Your task to perform on an android device: change keyboard looks Image 0: 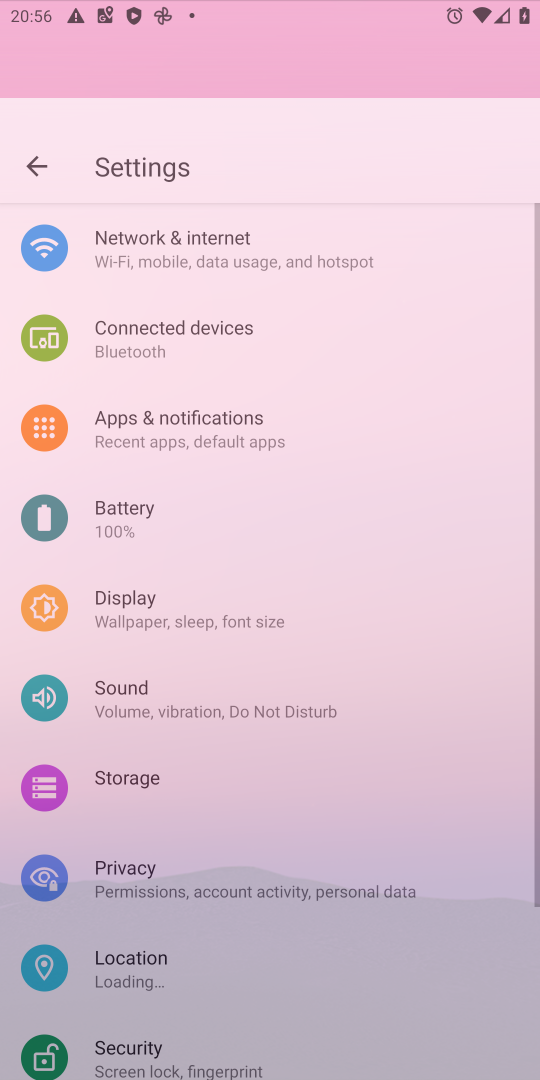
Step 0: press home button
Your task to perform on an android device: change keyboard looks Image 1: 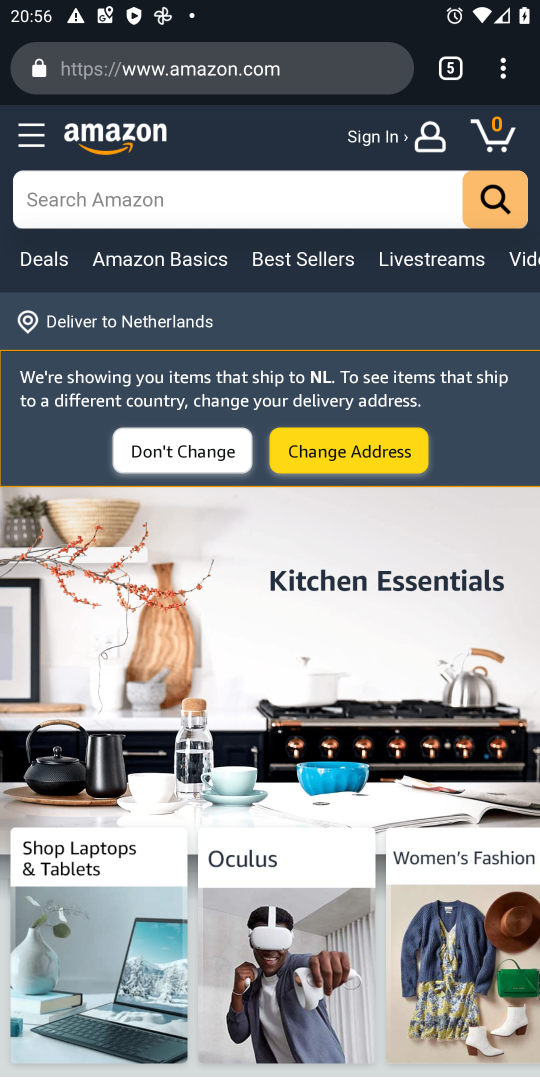
Step 1: press home button
Your task to perform on an android device: change keyboard looks Image 2: 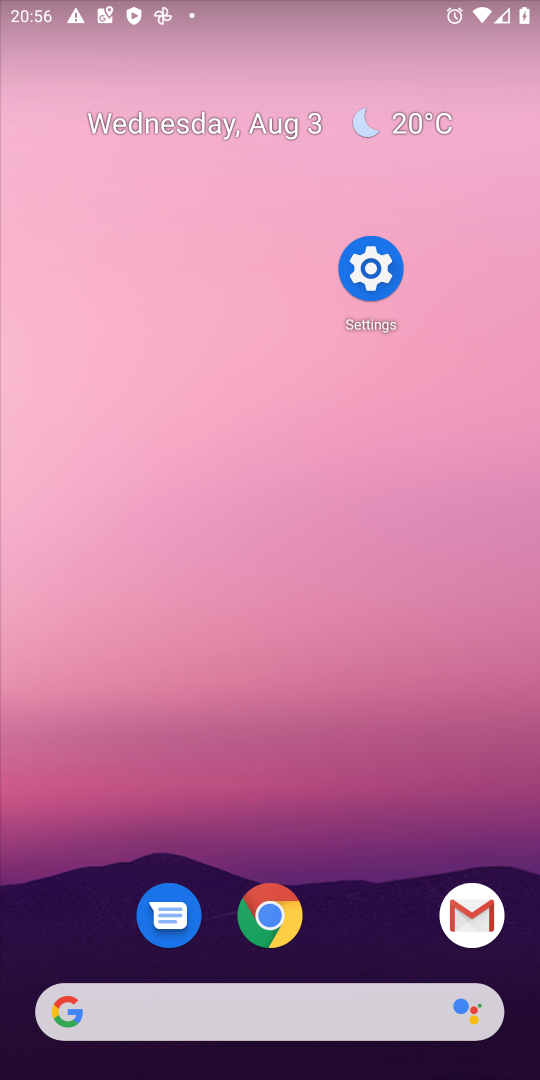
Step 2: drag from (342, 1049) to (308, 231)
Your task to perform on an android device: change keyboard looks Image 3: 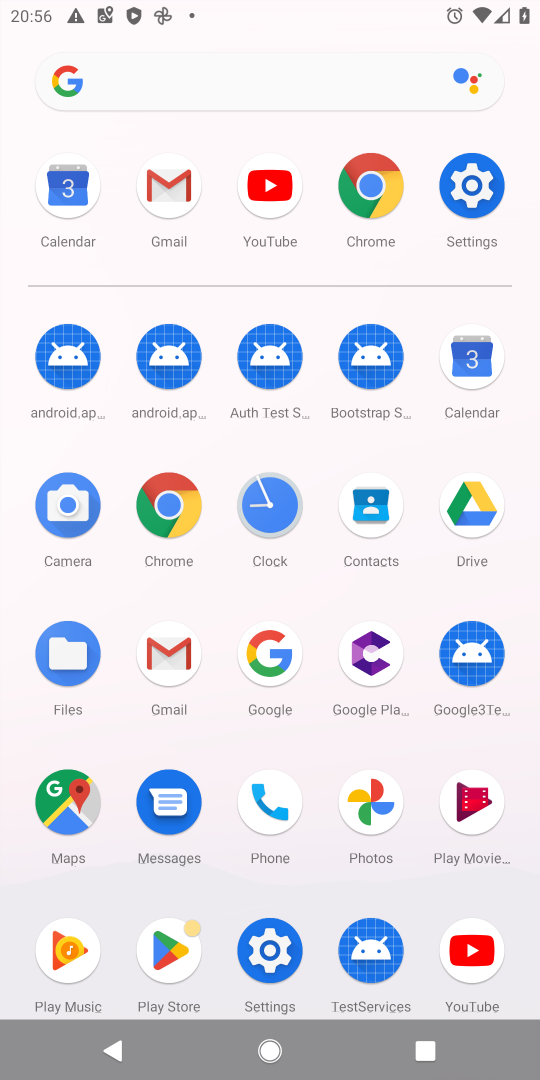
Step 3: click (476, 180)
Your task to perform on an android device: change keyboard looks Image 4: 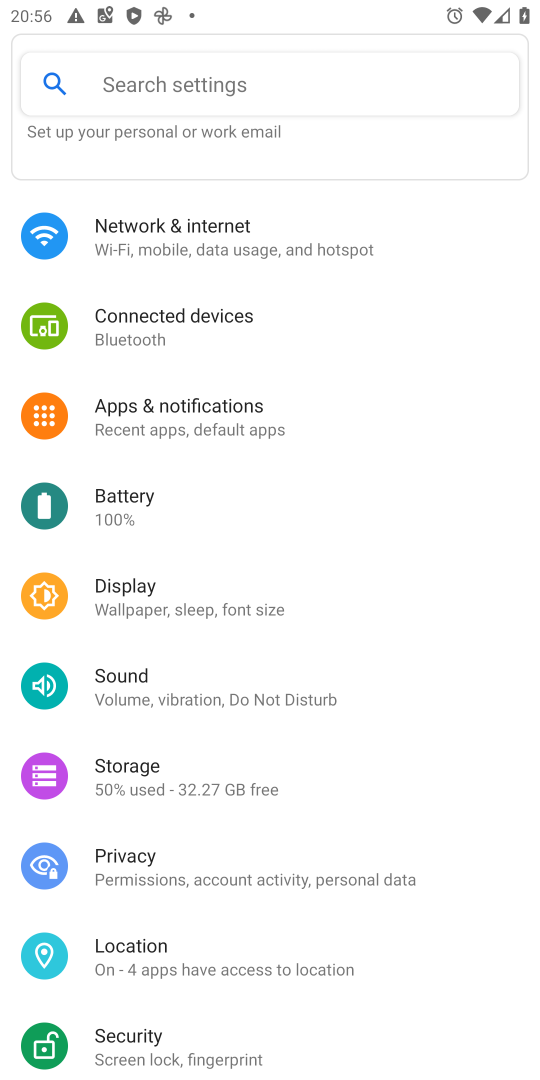
Step 4: click (198, 79)
Your task to perform on an android device: change keyboard looks Image 5: 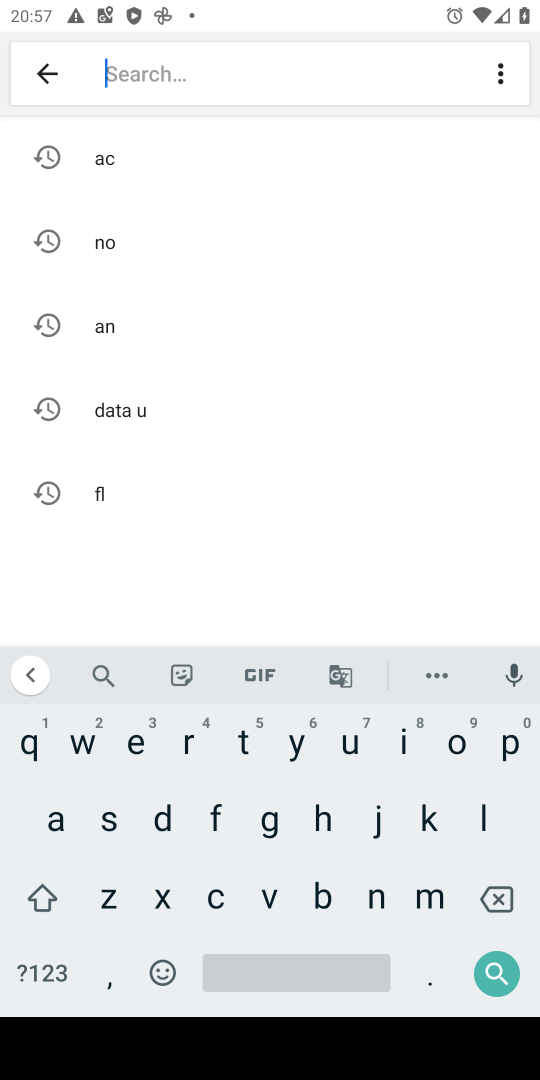
Step 5: click (431, 797)
Your task to perform on an android device: change keyboard looks Image 6: 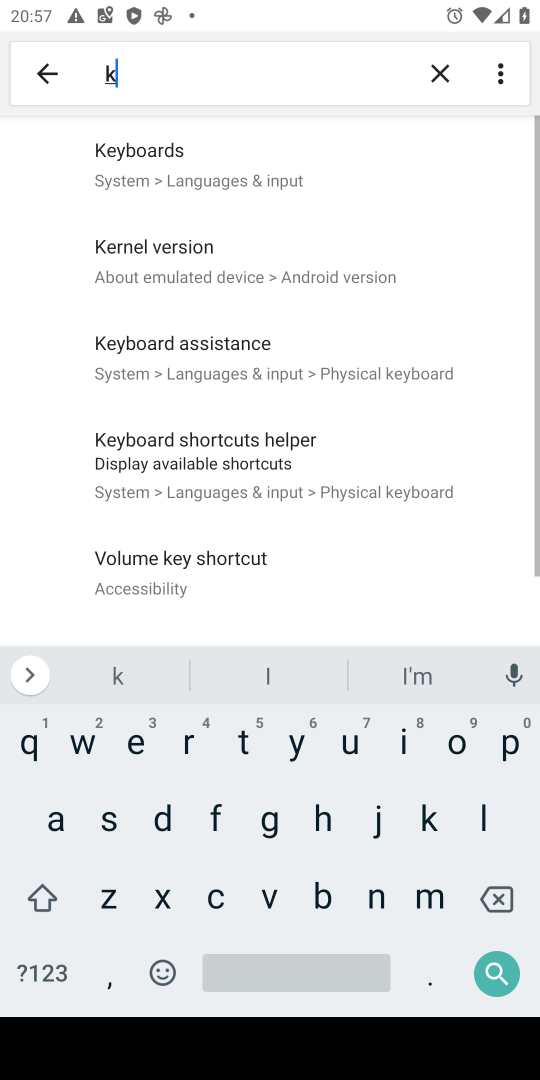
Step 6: click (183, 152)
Your task to perform on an android device: change keyboard looks Image 7: 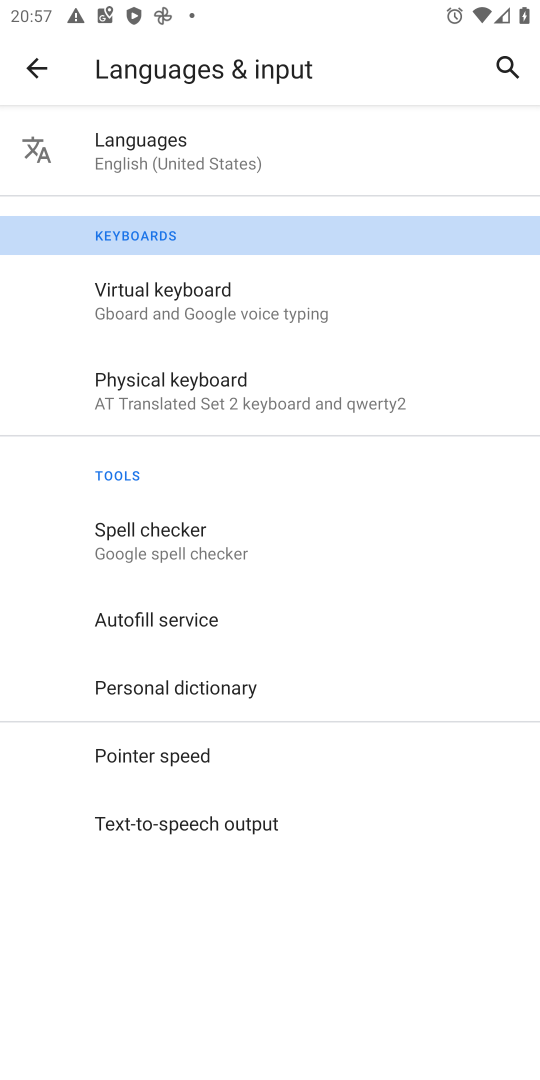
Step 7: click (177, 311)
Your task to perform on an android device: change keyboard looks Image 8: 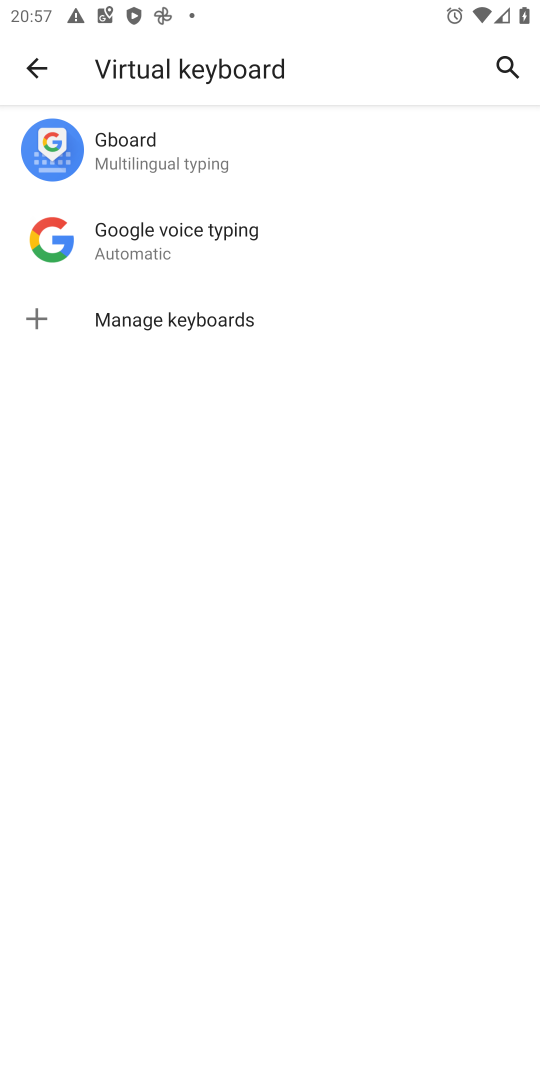
Step 8: click (200, 168)
Your task to perform on an android device: change keyboard looks Image 9: 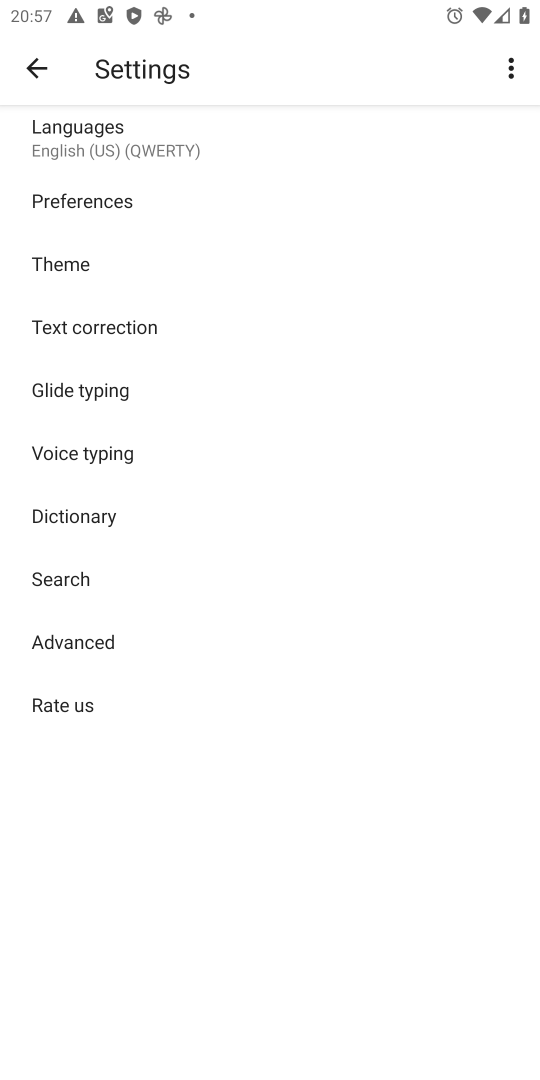
Step 9: click (61, 251)
Your task to perform on an android device: change keyboard looks Image 10: 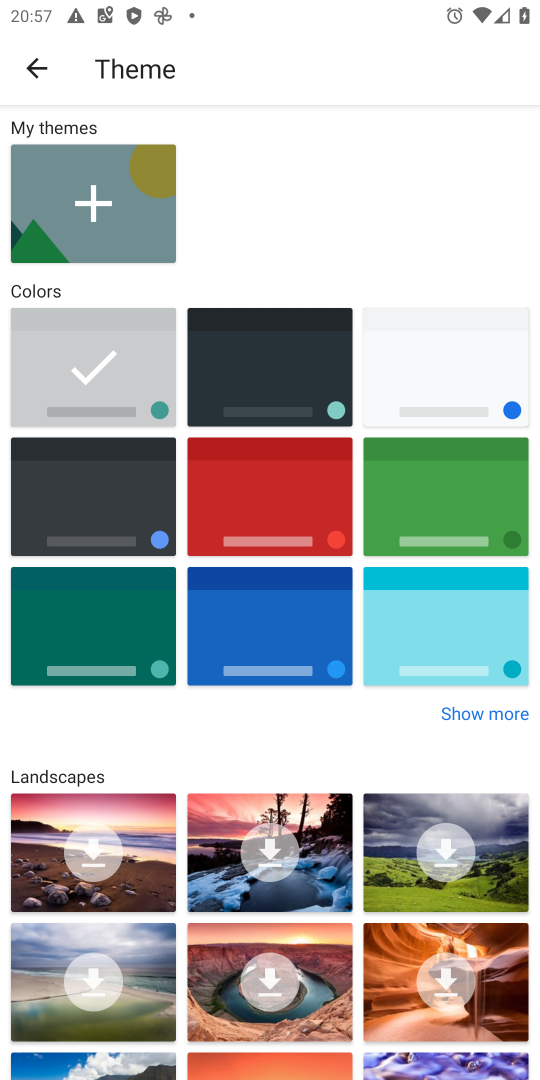
Step 10: click (410, 519)
Your task to perform on an android device: change keyboard looks Image 11: 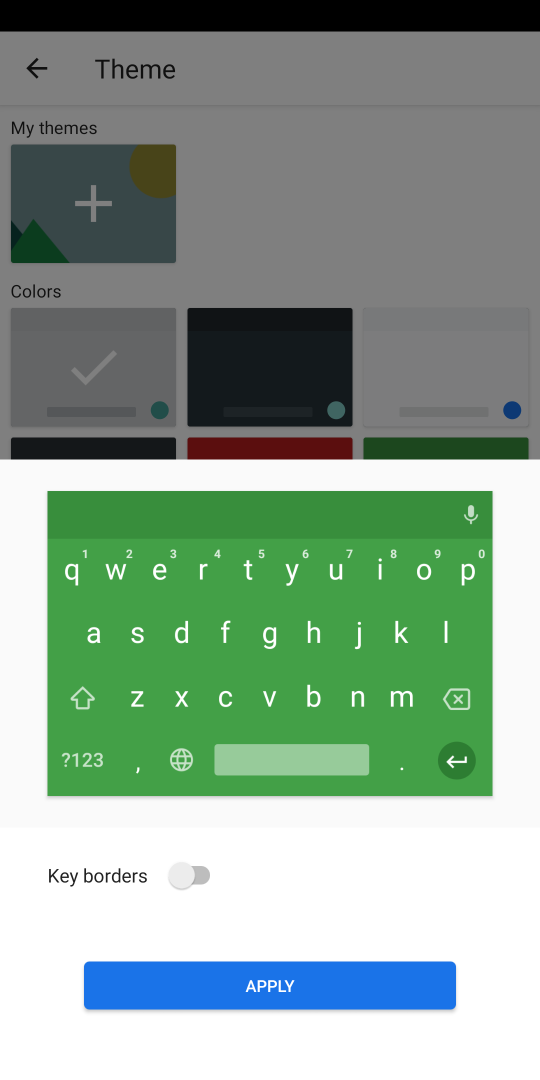
Step 11: click (196, 872)
Your task to perform on an android device: change keyboard looks Image 12: 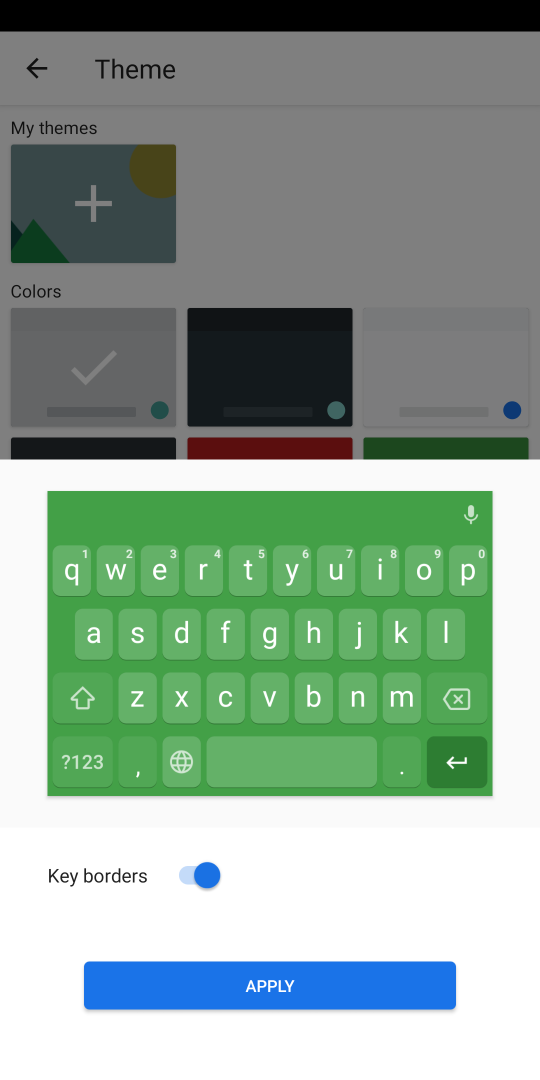
Step 12: click (238, 989)
Your task to perform on an android device: change keyboard looks Image 13: 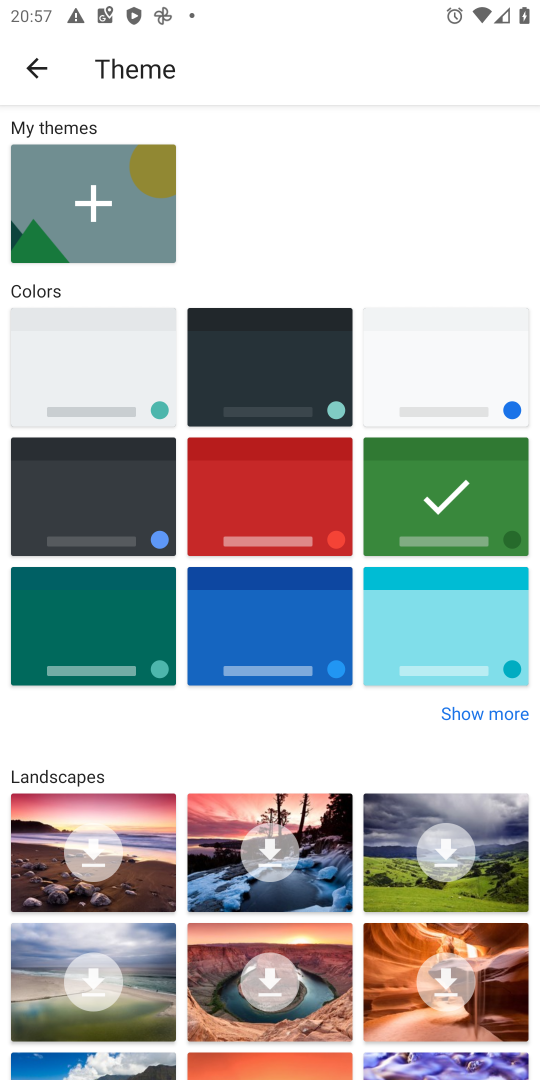
Step 13: task complete